Your task to perform on an android device: turn off notifications settings in the gmail app Image 0: 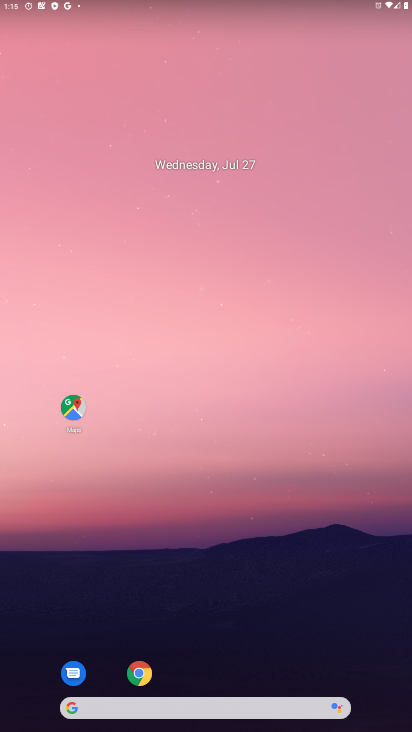
Step 0: drag from (231, 612) to (255, 4)
Your task to perform on an android device: turn off notifications settings in the gmail app Image 1: 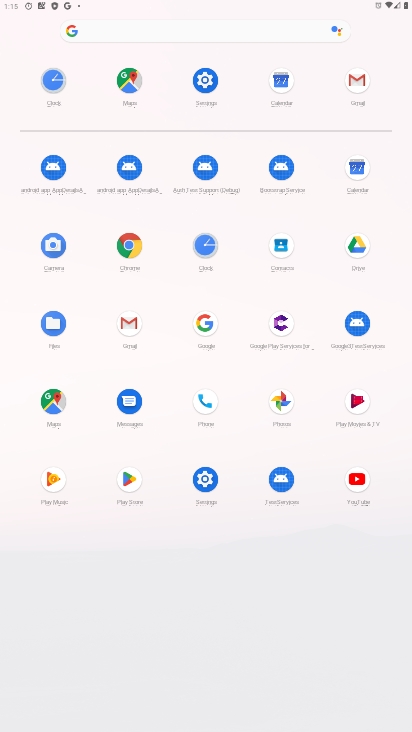
Step 1: click (362, 84)
Your task to perform on an android device: turn off notifications settings in the gmail app Image 2: 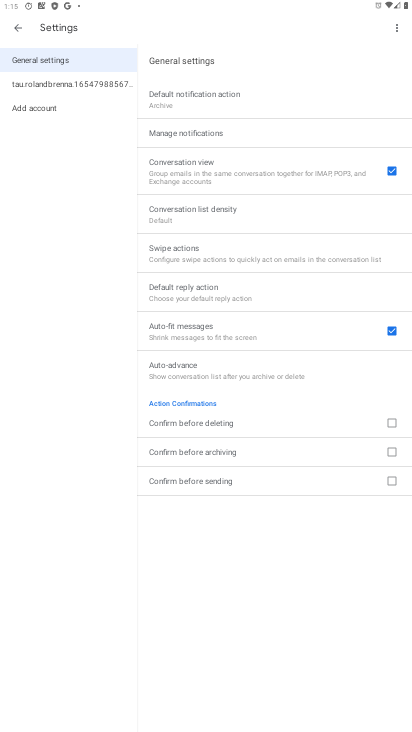
Step 2: click (166, 135)
Your task to perform on an android device: turn off notifications settings in the gmail app Image 3: 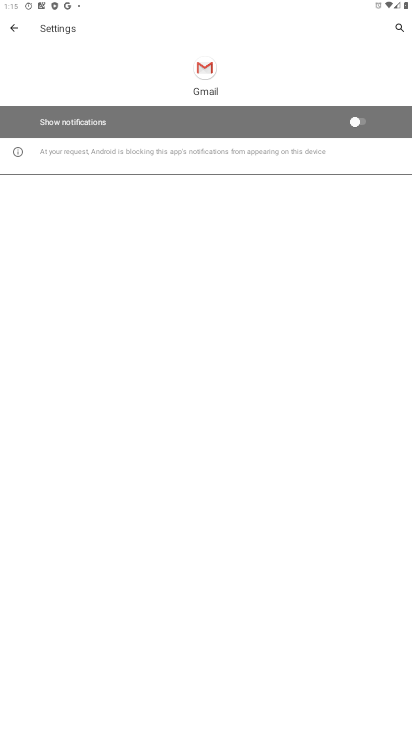
Step 3: task complete